Your task to perform on an android device: toggle pop-ups in chrome Image 0: 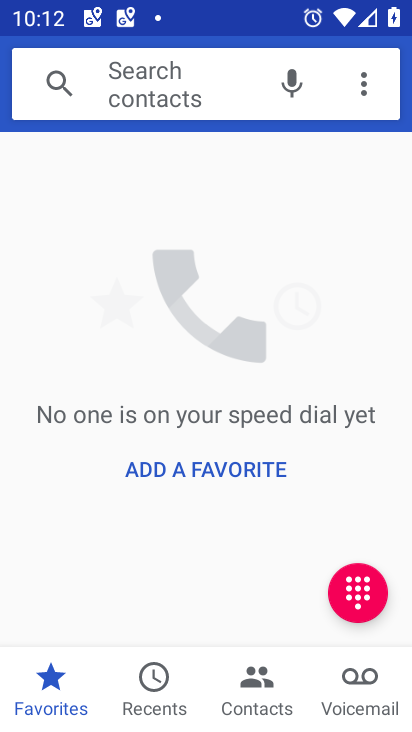
Step 0: press home button
Your task to perform on an android device: toggle pop-ups in chrome Image 1: 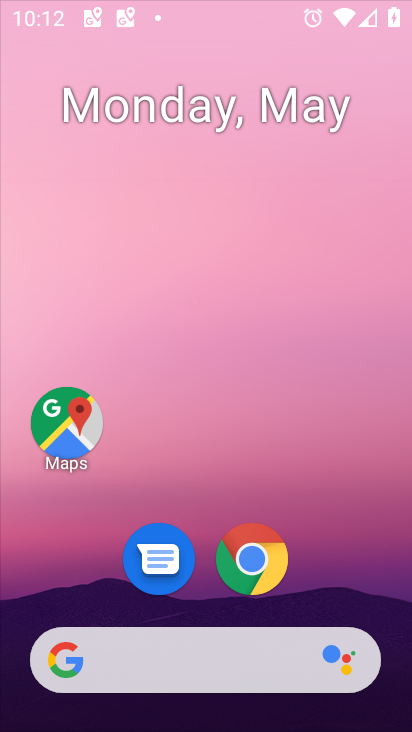
Step 1: drag from (317, 261) to (272, 126)
Your task to perform on an android device: toggle pop-ups in chrome Image 2: 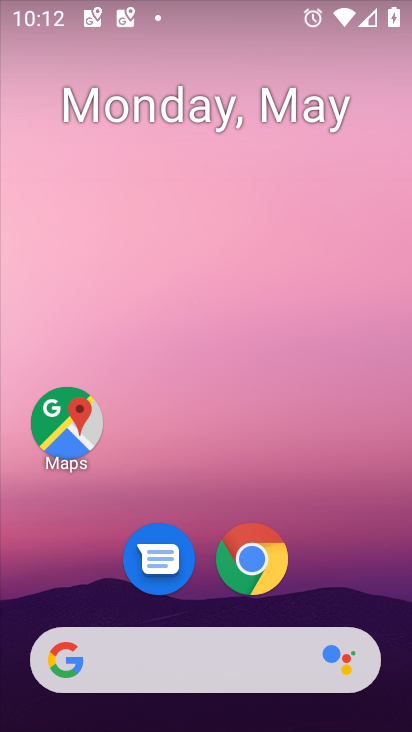
Step 2: drag from (340, 159) to (300, 19)
Your task to perform on an android device: toggle pop-ups in chrome Image 3: 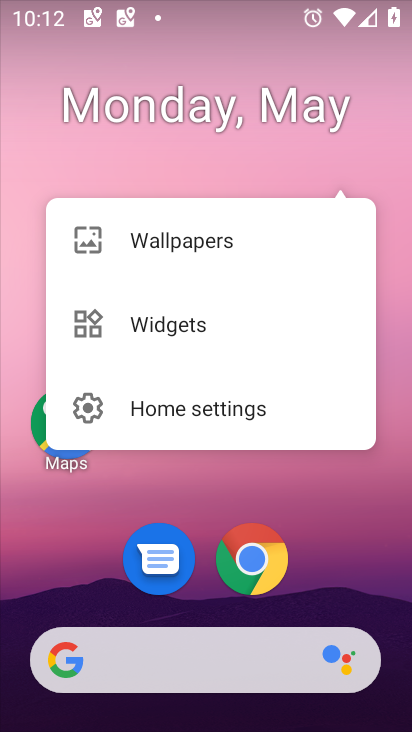
Step 3: click (360, 514)
Your task to perform on an android device: toggle pop-ups in chrome Image 4: 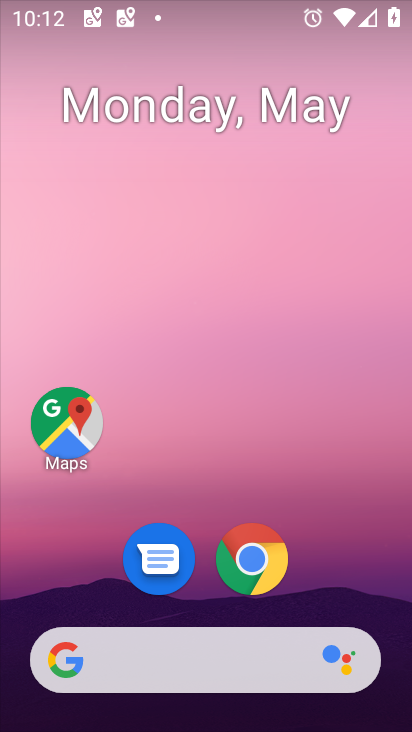
Step 4: drag from (389, 663) to (263, 113)
Your task to perform on an android device: toggle pop-ups in chrome Image 5: 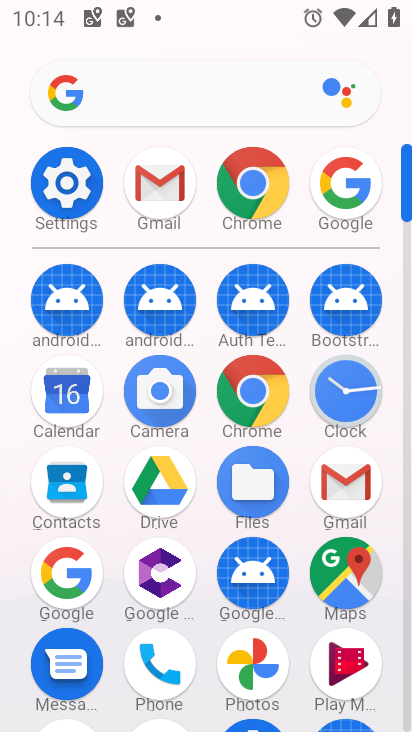
Step 5: click (245, 191)
Your task to perform on an android device: toggle pop-ups in chrome Image 6: 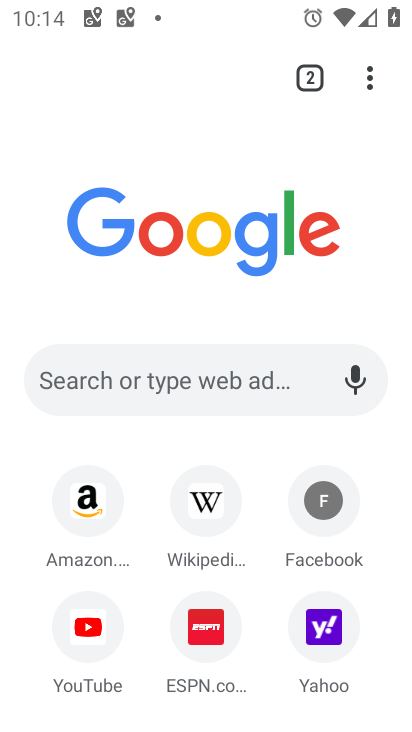
Step 6: click (356, 72)
Your task to perform on an android device: toggle pop-ups in chrome Image 7: 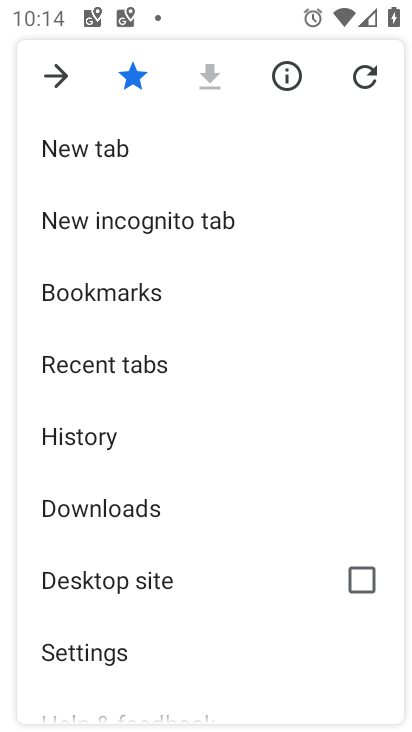
Step 7: click (125, 657)
Your task to perform on an android device: toggle pop-ups in chrome Image 8: 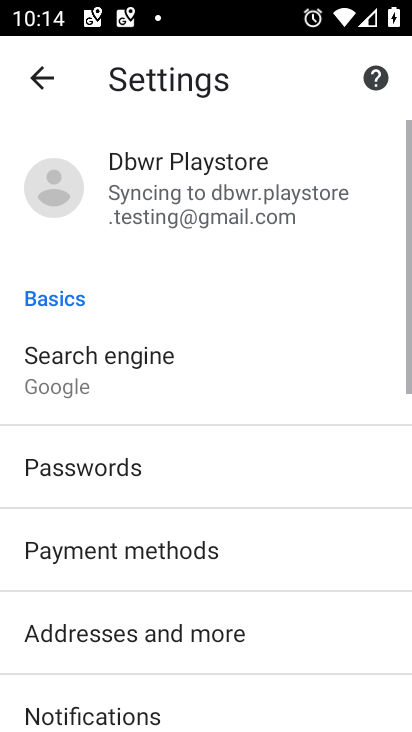
Step 8: drag from (125, 657) to (183, 205)
Your task to perform on an android device: toggle pop-ups in chrome Image 9: 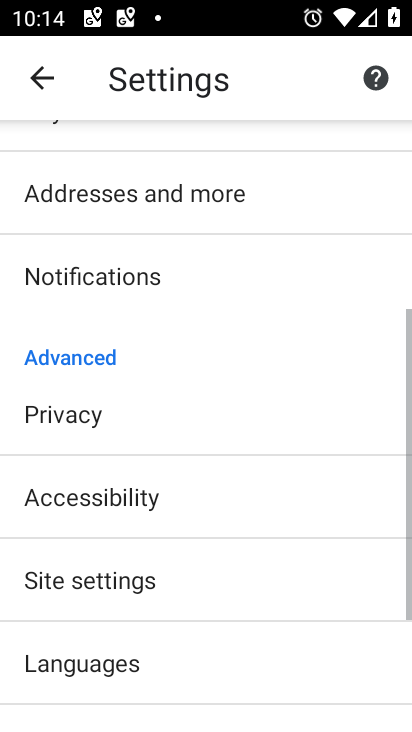
Step 9: drag from (174, 649) to (174, 446)
Your task to perform on an android device: toggle pop-ups in chrome Image 10: 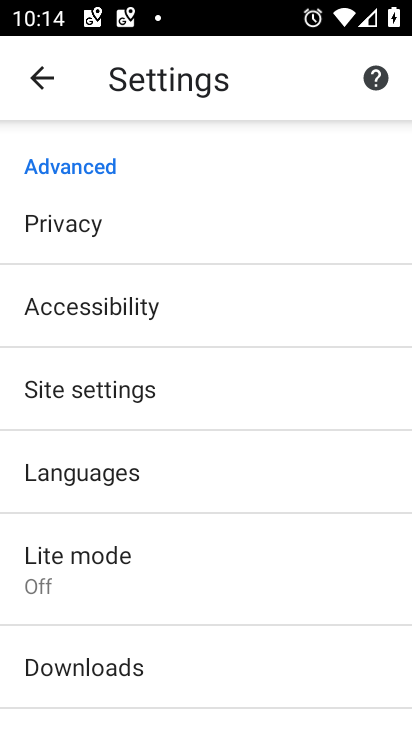
Step 10: click (218, 387)
Your task to perform on an android device: toggle pop-ups in chrome Image 11: 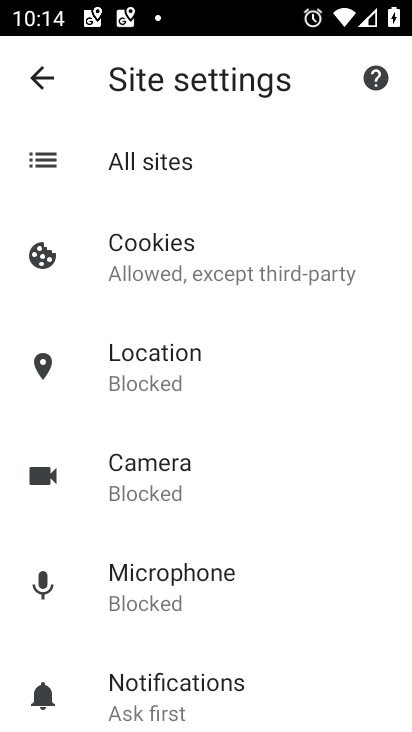
Step 11: drag from (182, 668) to (215, 182)
Your task to perform on an android device: toggle pop-ups in chrome Image 12: 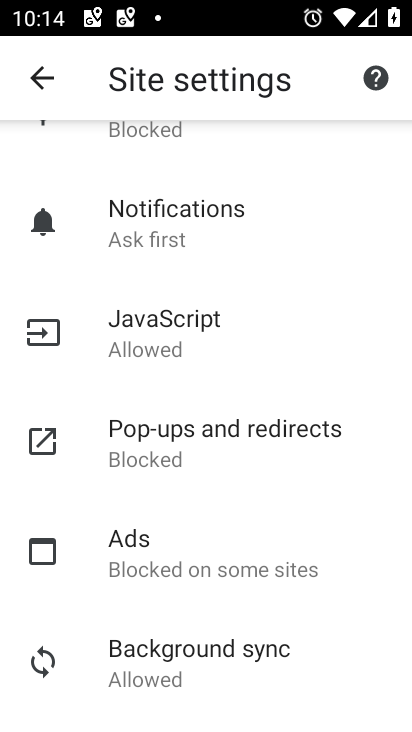
Step 12: click (233, 432)
Your task to perform on an android device: toggle pop-ups in chrome Image 13: 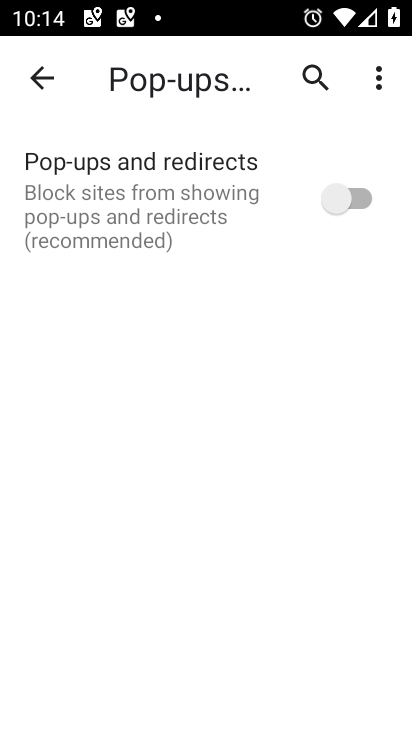
Step 13: click (314, 229)
Your task to perform on an android device: toggle pop-ups in chrome Image 14: 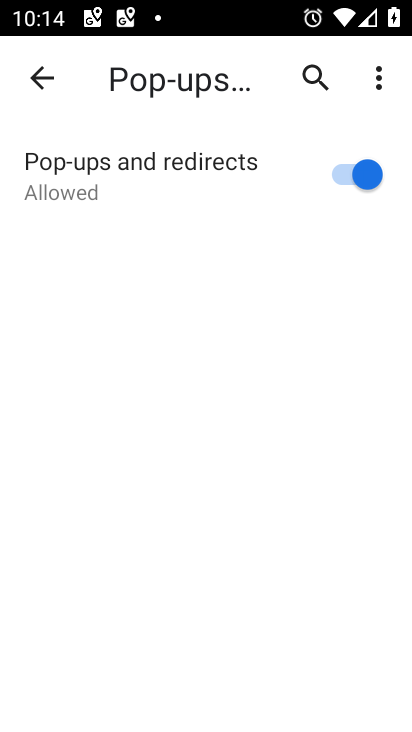
Step 14: task complete